Your task to perform on an android device: toggle data saver in the chrome app Image 0: 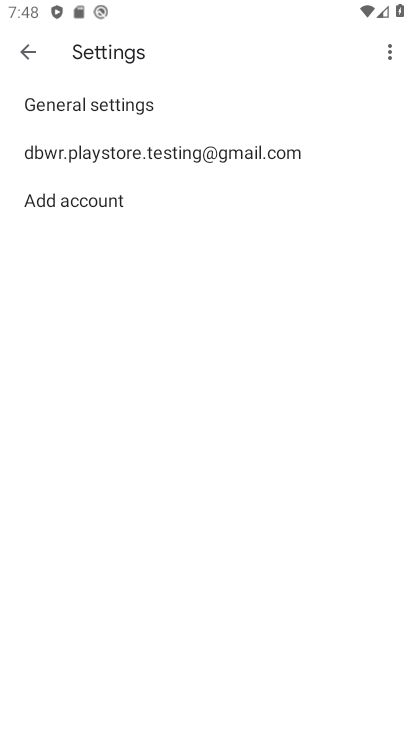
Step 0: press home button
Your task to perform on an android device: toggle data saver in the chrome app Image 1: 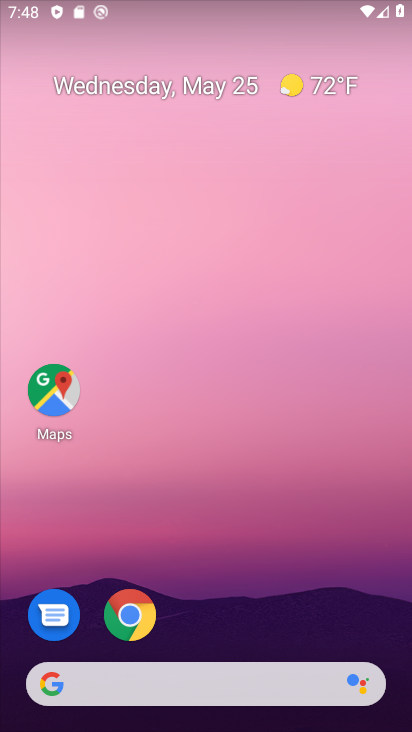
Step 1: click (140, 601)
Your task to perform on an android device: toggle data saver in the chrome app Image 2: 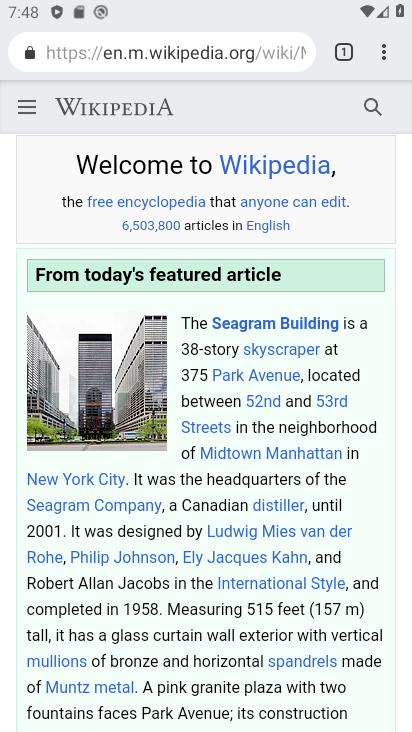
Step 2: click (379, 46)
Your task to perform on an android device: toggle data saver in the chrome app Image 3: 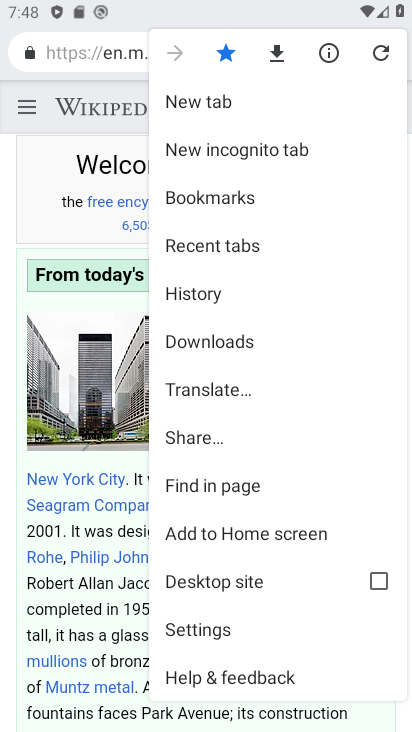
Step 3: click (241, 631)
Your task to perform on an android device: toggle data saver in the chrome app Image 4: 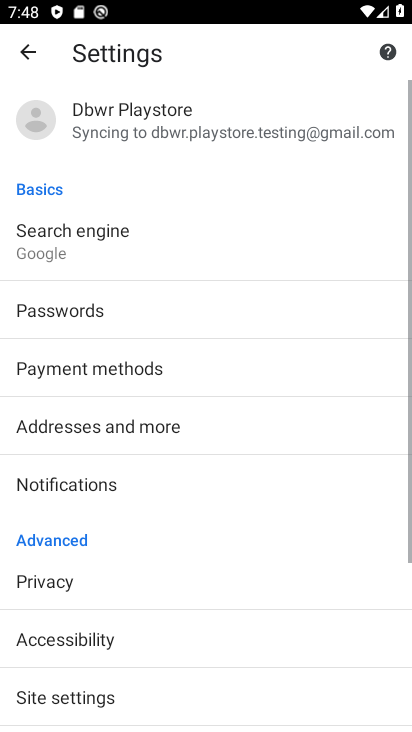
Step 4: drag from (251, 587) to (257, 319)
Your task to perform on an android device: toggle data saver in the chrome app Image 5: 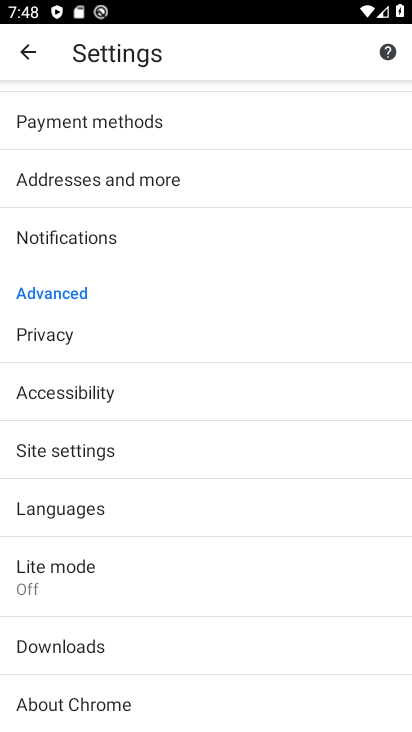
Step 5: click (155, 587)
Your task to perform on an android device: toggle data saver in the chrome app Image 6: 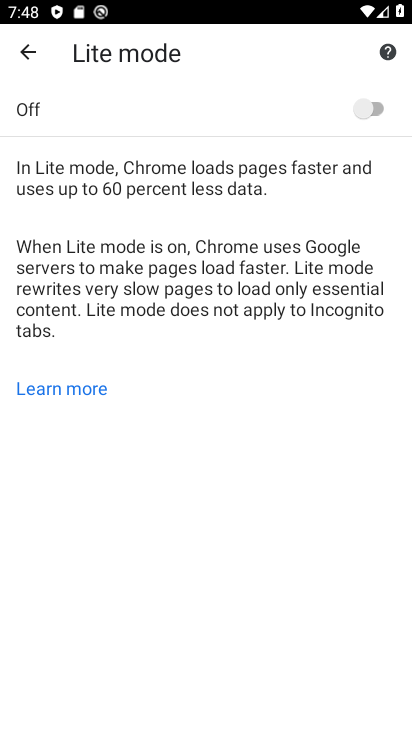
Step 6: click (371, 106)
Your task to perform on an android device: toggle data saver in the chrome app Image 7: 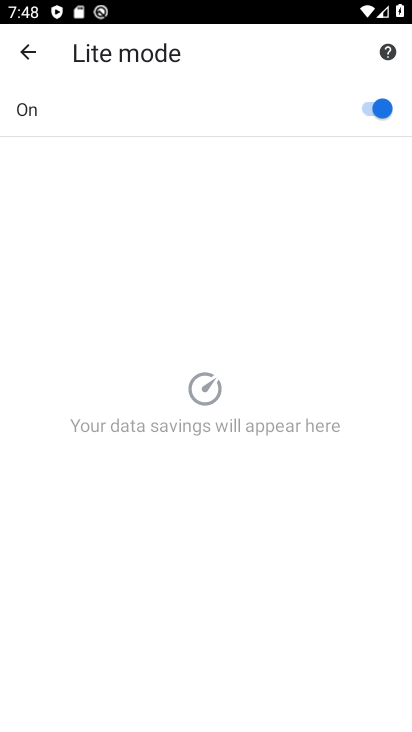
Step 7: task complete